Your task to perform on an android device: Do I have any events this weekend? Image 0: 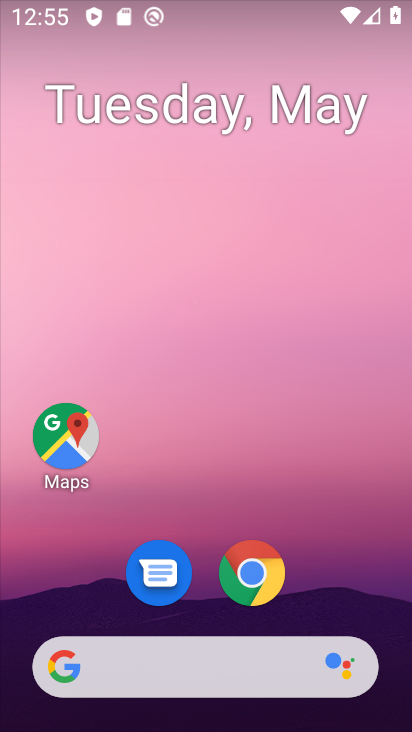
Step 0: drag from (306, 523) to (161, 94)
Your task to perform on an android device: Do I have any events this weekend? Image 1: 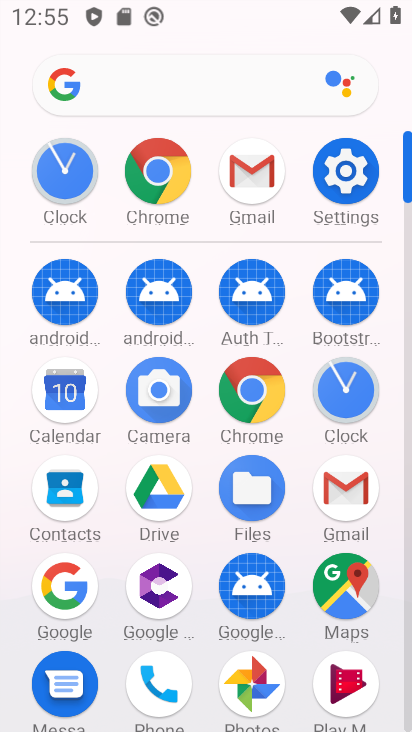
Step 1: click (79, 395)
Your task to perform on an android device: Do I have any events this weekend? Image 2: 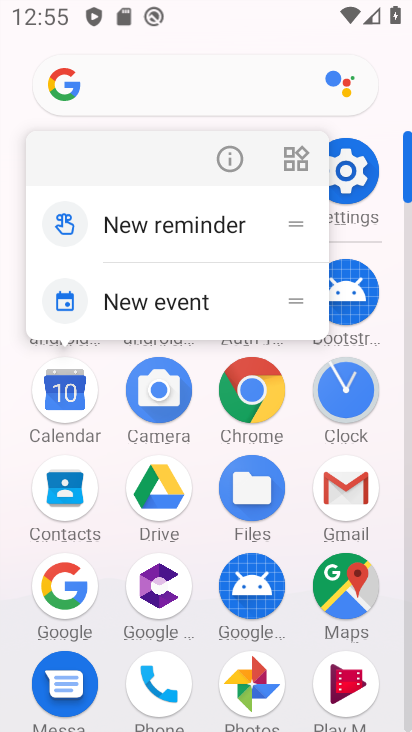
Step 2: click (73, 391)
Your task to perform on an android device: Do I have any events this weekend? Image 3: 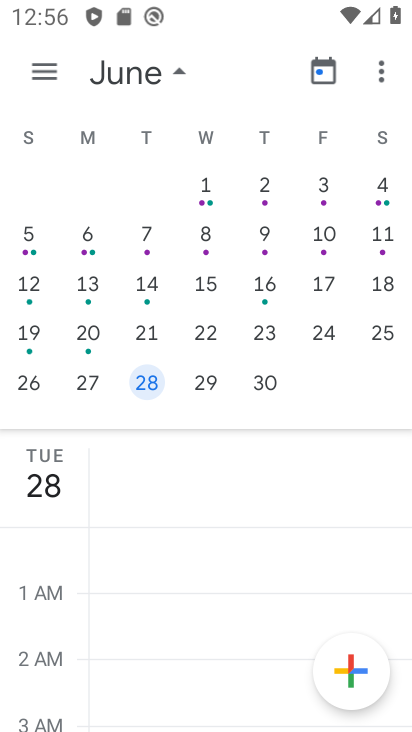
Step 3: click (211, 394)
Your task to perform on an android device: Do I have any events this weekend? Image 4: 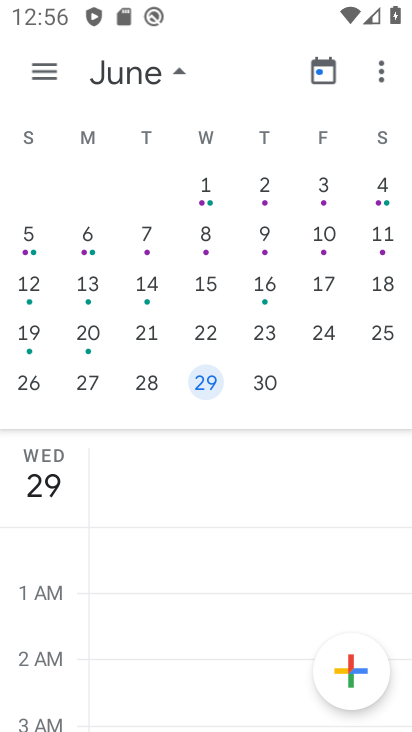
Step 4: task complete